Your task to perform on an android device: turn off airplane mode Image 0: 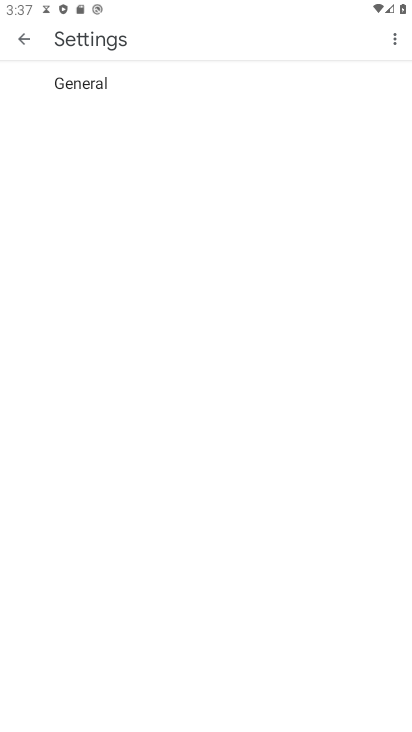
Step 0: press home button
Your task to perform on an android device: turn off airplane mode Image 1: 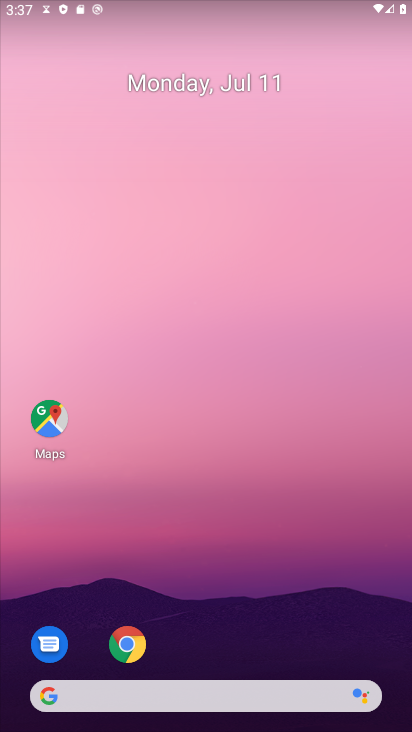
Step 1: drag from (180, 717) to (153, 111)
Your task to perform on an android device: turn off airplane mode Image 2: 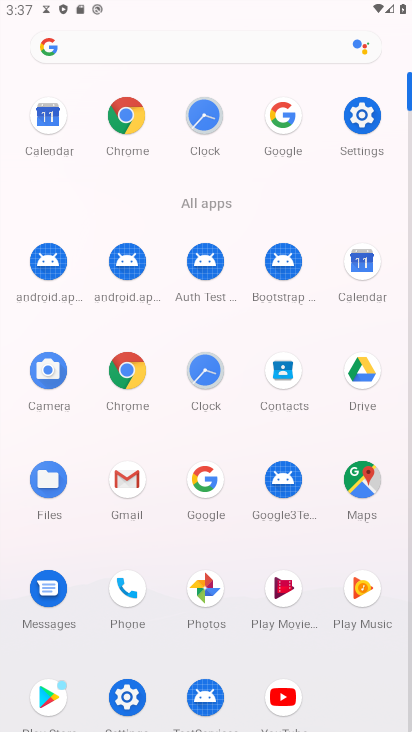
Step 2: click (361, 114)
Your task to perform on an android device: turn off airplane mode Image 3: 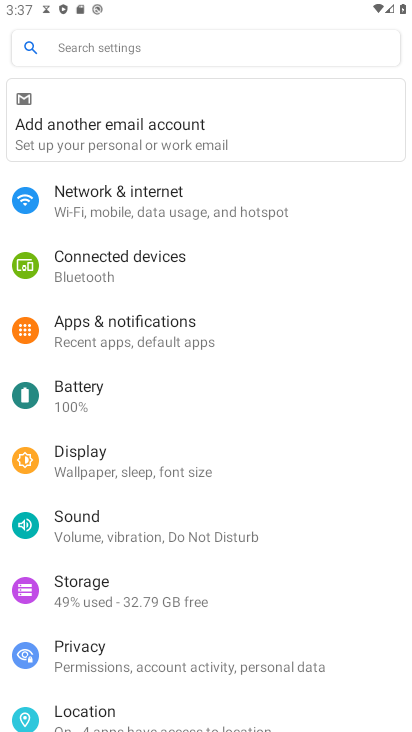
Step 3: click (162, 199)
Your task to perform on an android device: turn off airplane mode Image 4: 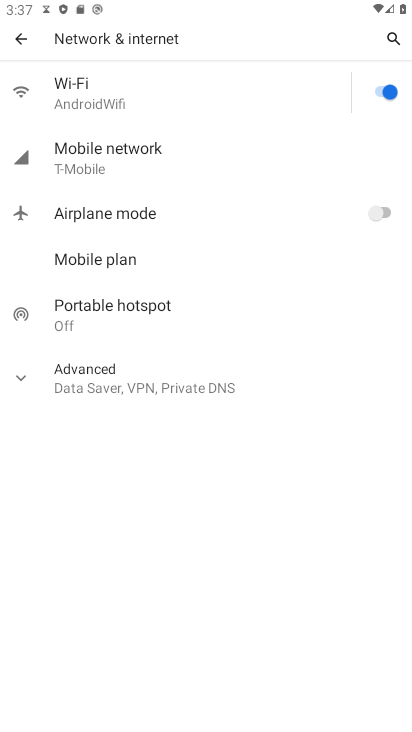
Step 4: task complete